Your task to perform on an android device: Open Yahoo.com Image 0: 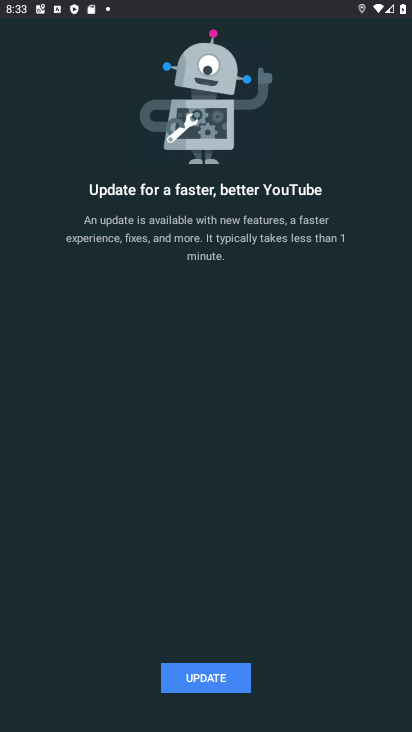
Step 0: press home button
Your task to perform on an android device: Open Yahoo.com Image 1: 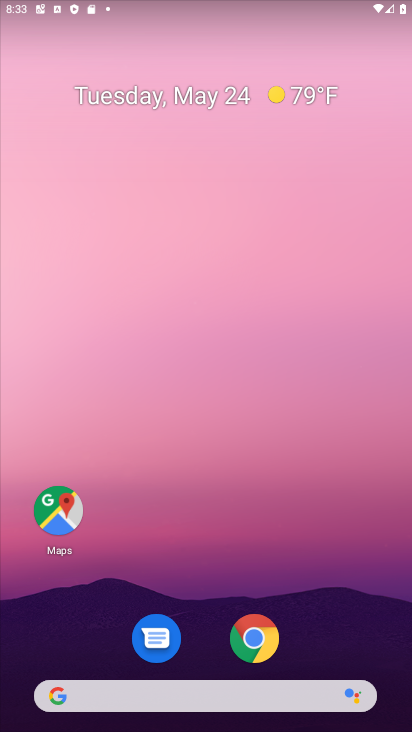
Step 1: click (235, 689)
Your task to perform on an android device: Open Yahoo.com Image 2: 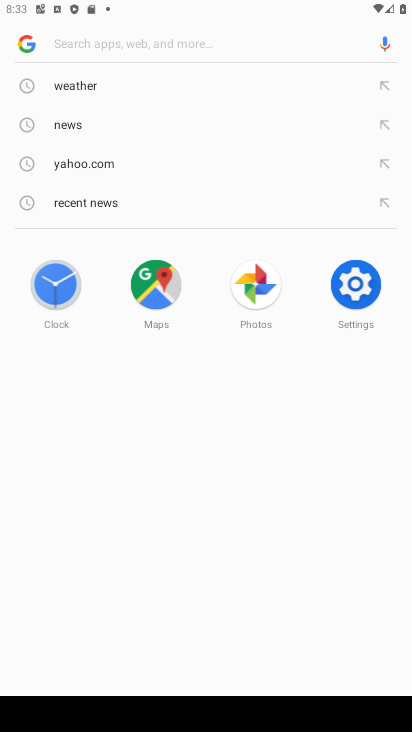
Step 2: click (132, 161)
Your task to perform on an android device: Open Yahoo.com Image 3: 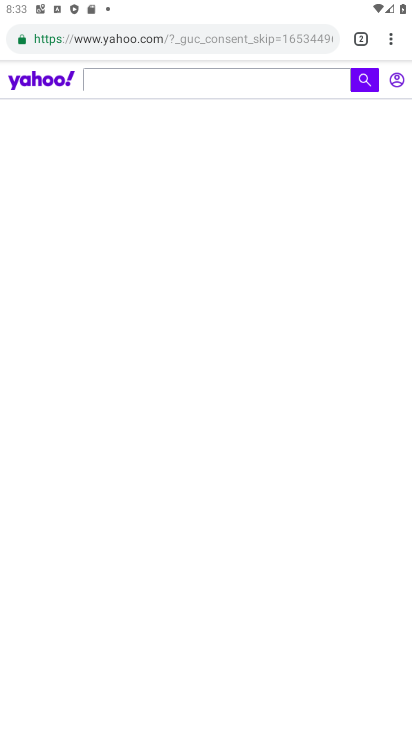
Step 3: task complete